Your task to perform on an android device: toggle airplane mode Image 0: 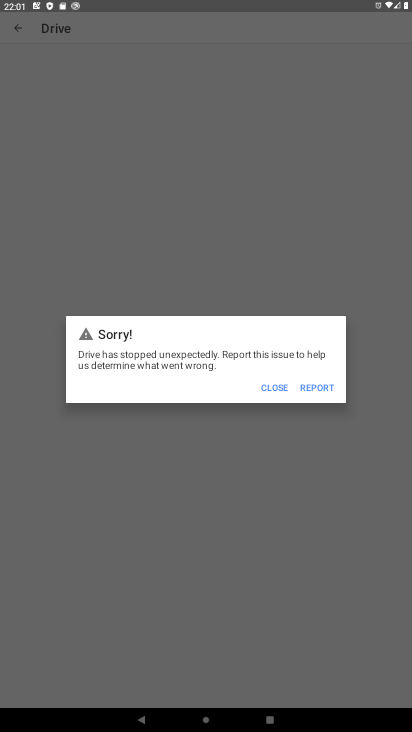
Step 0: press home button
Your task to perform on an android device: toggle airplane mode Image 1: 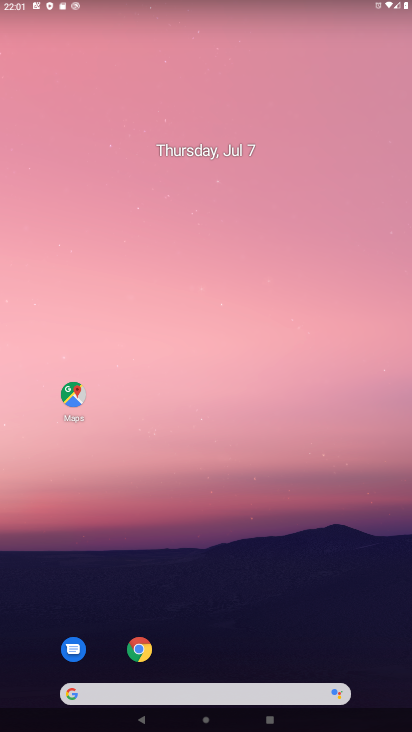
Step 1: drag from (231, 560) to (231, 123)
Your task to perform on an android device: toggle airplane mode Image 2: 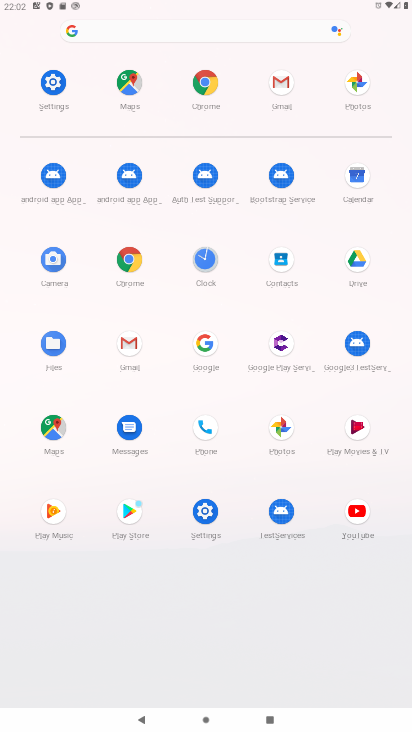
Step 2: click (46, 80)
Your task to perform on an android device: toggle airplane mode Image 3: 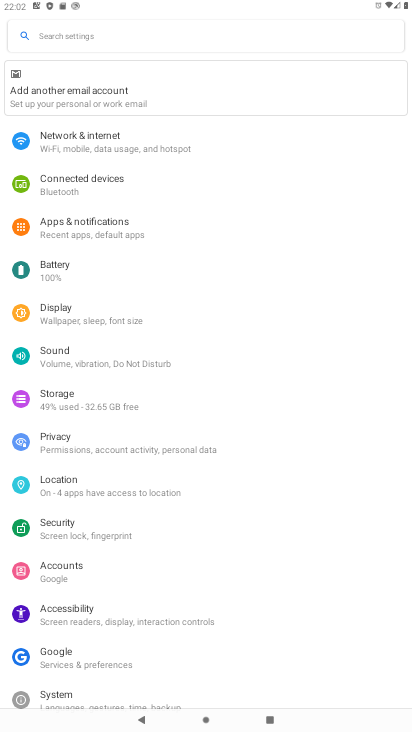
Step 3: click (88, 140)
Your task to perform on an android device: toggle airplane mode Image 4: 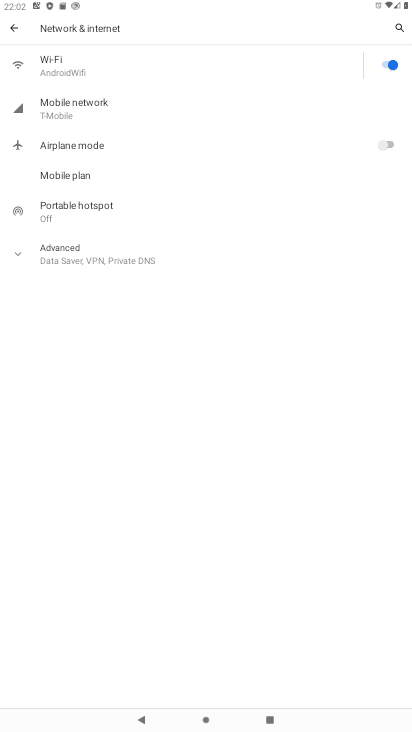
Step 4: click (389, 142)
Your task to perform on an android device: toggle airplane mode Image 5: 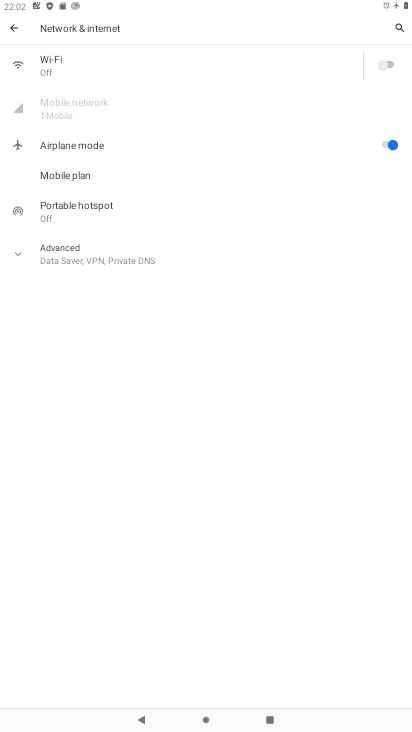
Step 5: task complete